Your task to perform on an android device: Open sound settings Image 0: 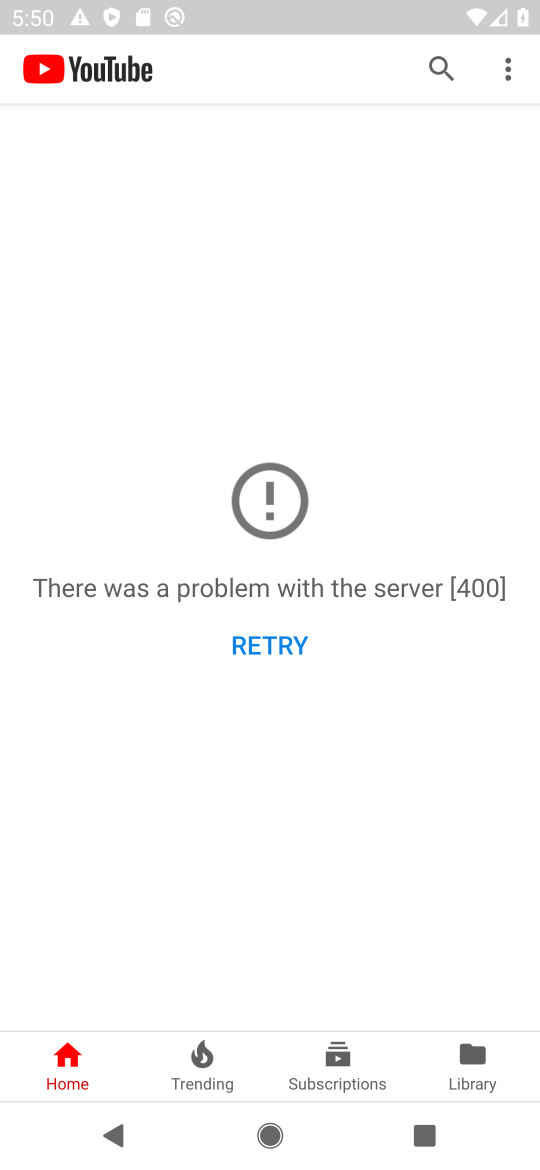
Step 0: press home button
Your task to perform on an android device: Open sound settings Image 1: 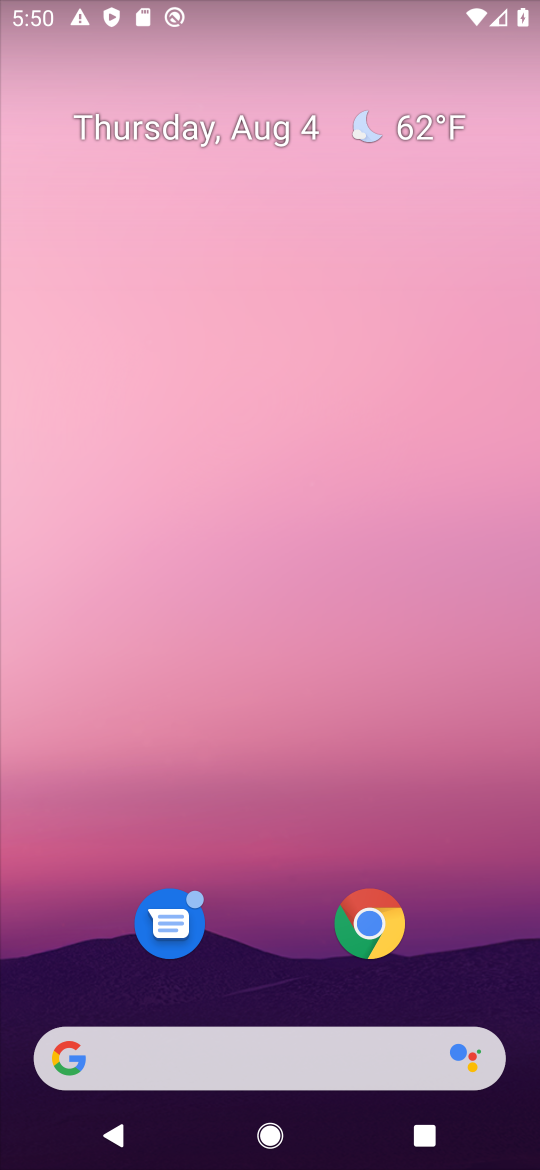
Step 1: drag from (469, 968) to (338, 209)
Your task to perform on an android device: Open sound settings Image 2: 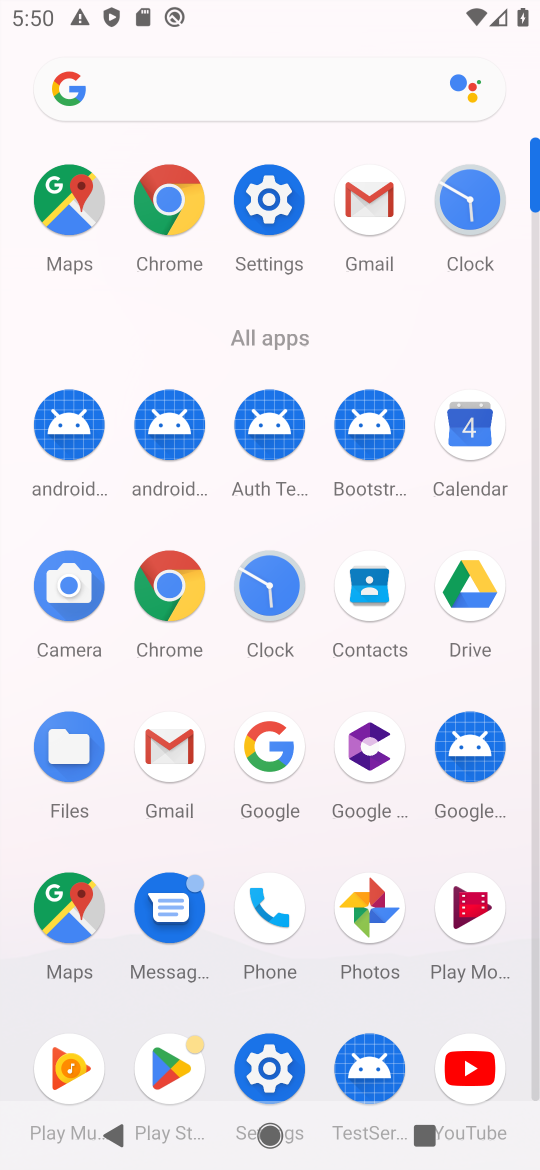
Step 2: click (276, 203)
Your task to perform on an android device: Open sound settings Image 3: 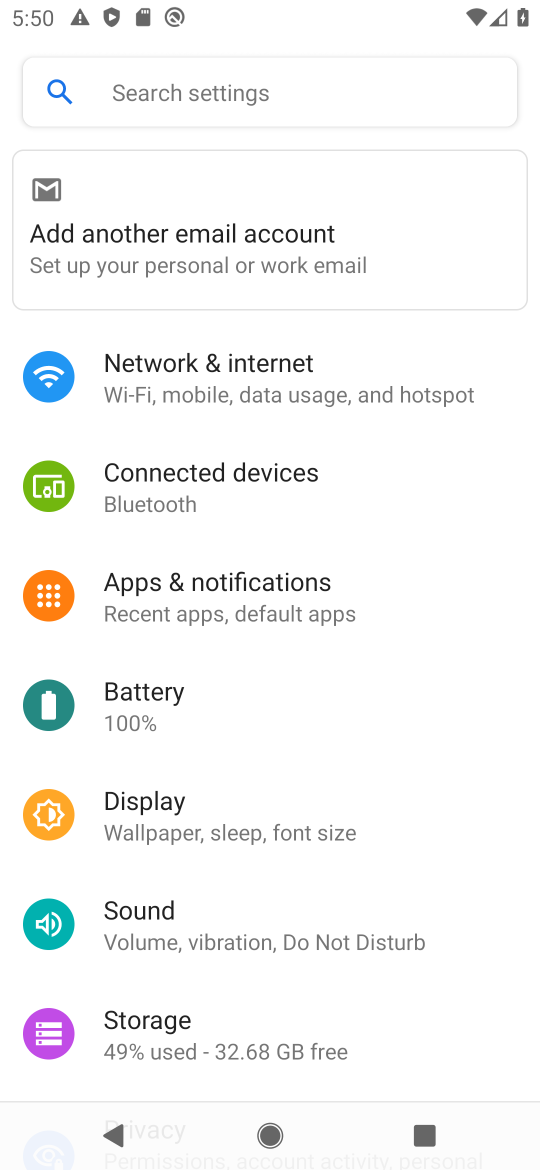
Step 3: click (207, 926)
Your task to perform on an android device: Open sound settings Image 4: 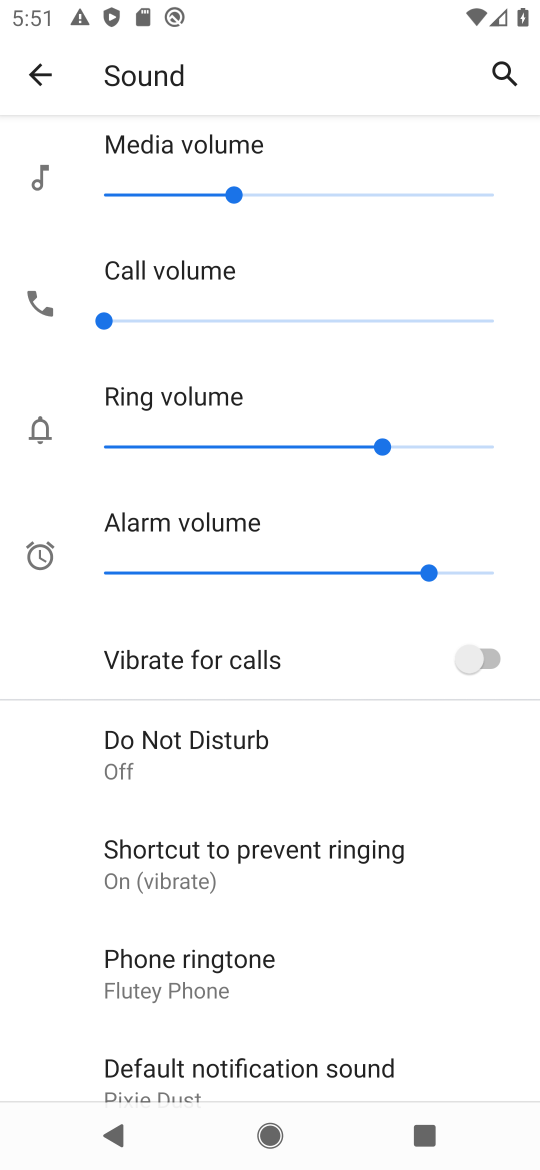
Step 4: task complete